Your task to perform on an android device: What's on my calendar tomorrow? Image 0: 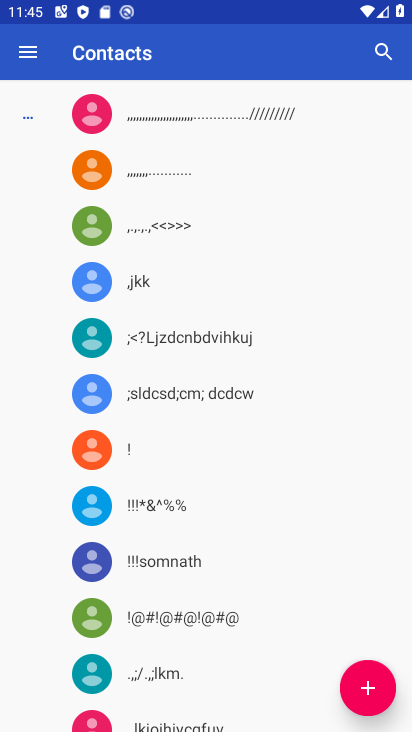
Step 0: press home button
Your task to perform on an android device: What's on my calendar tomorrow? Image 1: 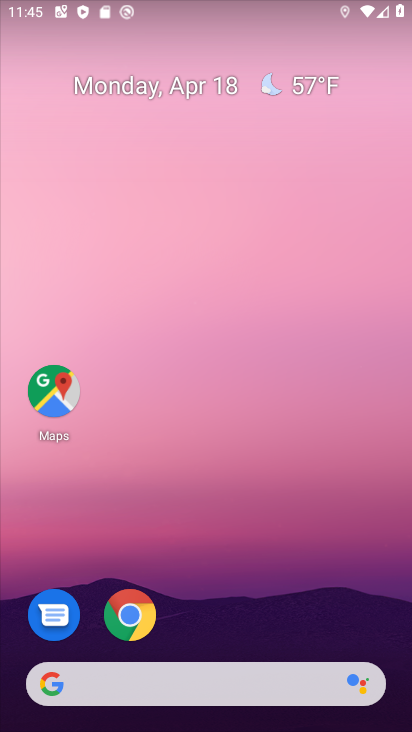
Step 1: drag from (216, 621) to (270, 152)
Your task to perform on an android device: What's on my calendar tomorrow? Image 2: 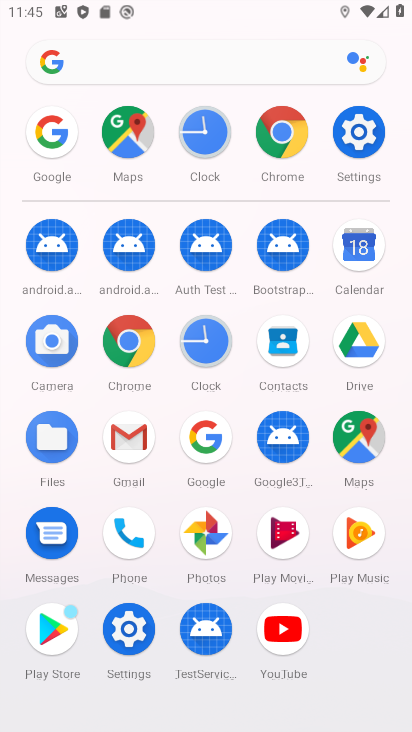
Step 2: click (347, 252)
Your task to perform on an android device: What's on my calendar tomorrow? Image 3: 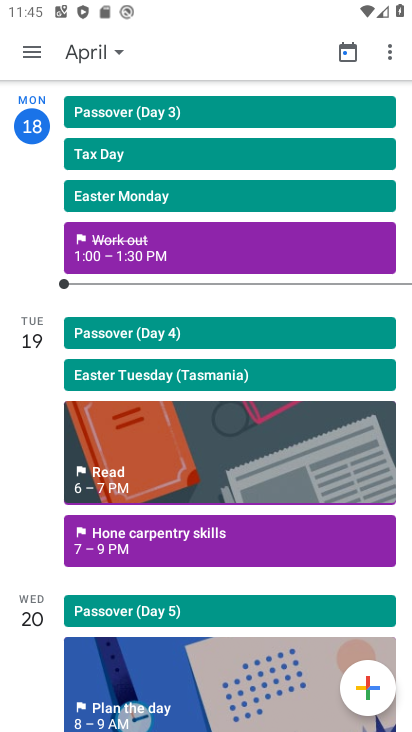
Step 3: click (93, 60)
Your task to perform on an android device: What's on my calendar tomorrow? Image 4: 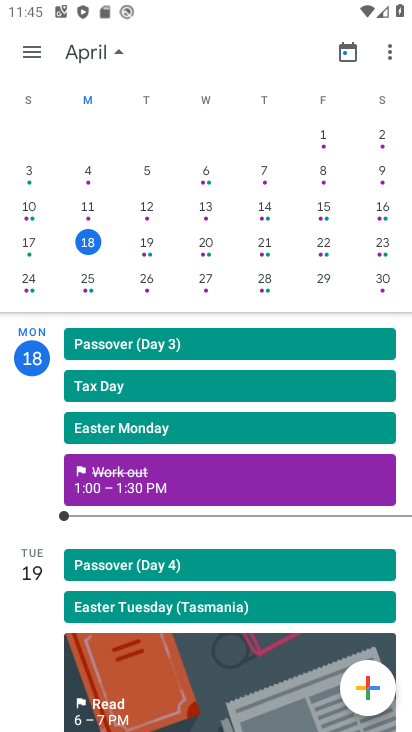
Step 4: click (148, 242)
Your task to perform on an android device: What's on my calendar tomorrow? Image 5: 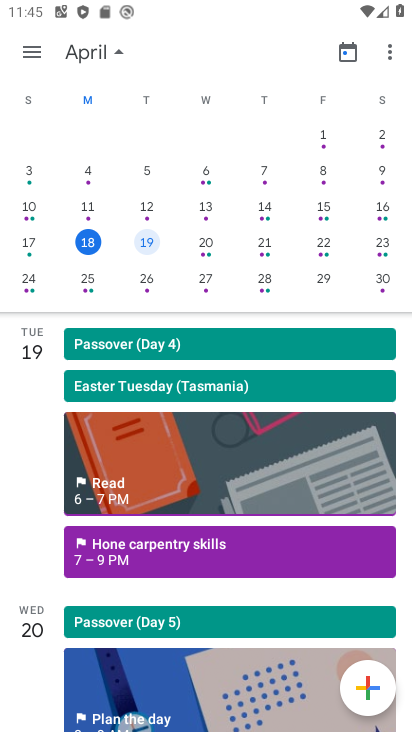
Step 5: click (147, 243)
Your task to perform on an android device: What's on my calendar tomorrow? Image 6: 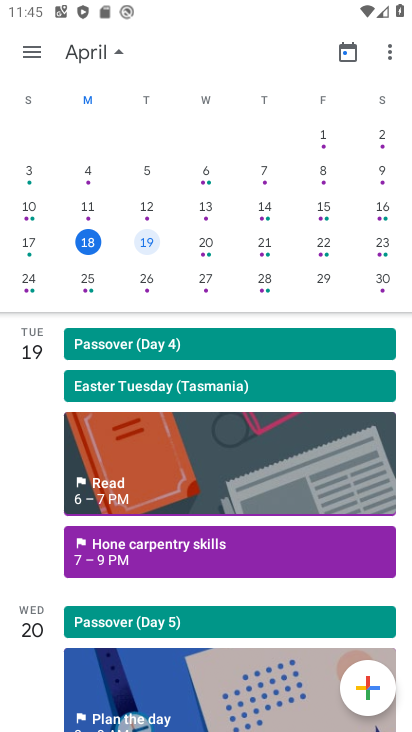
Step 6: task complete